Your task to perform on an android device: snooze an email in the gmail app Image 0: 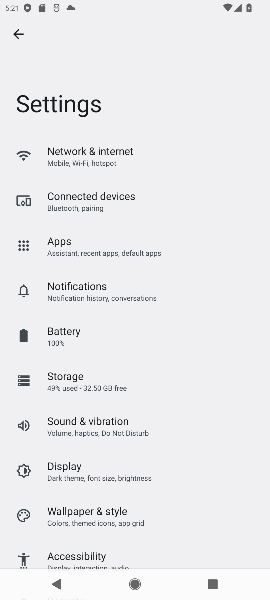
Step 0: press home button
Your task to perform on an android device: snooze an email in the gmail app Image 1: 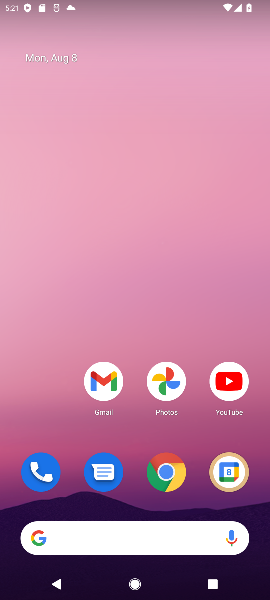
Step 1: click (103, 385)
Your task to perform on an android device: snooze an email in the gmail app Image 2: 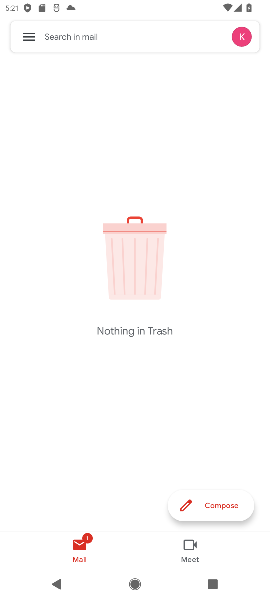
Step 2: click (24, 38)
Your task to perform on an android device: snooze an email in the gmail app Image 3: 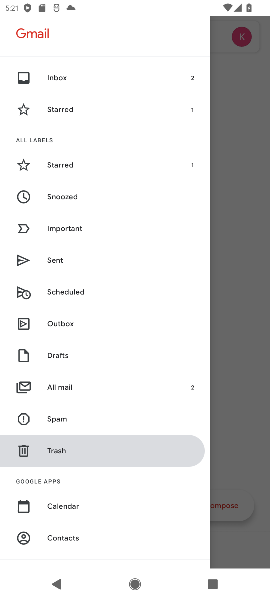
Step 3: click (51, 382)
Your task to perform on an android device: snooze an email in the gmail app Image 4: 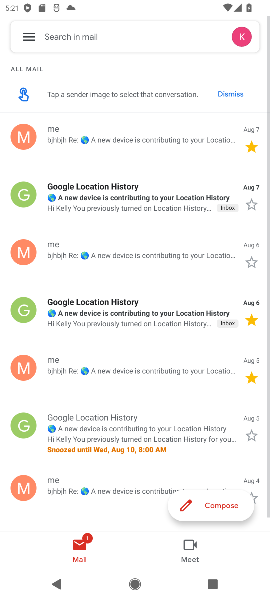
Step 4: click (100, 138)
Your task to perform on an android device: snooze an email in the gmail app Image 5: 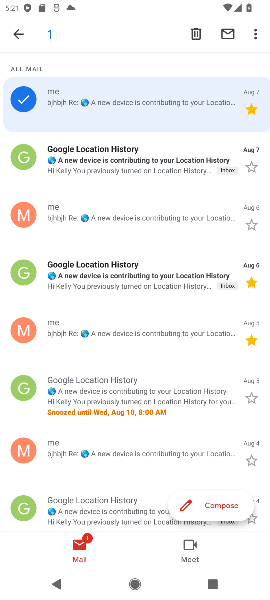
Step 5: click (251, 32)
Your task to perform on an android device: snooze an email in the gmail app Image 6: 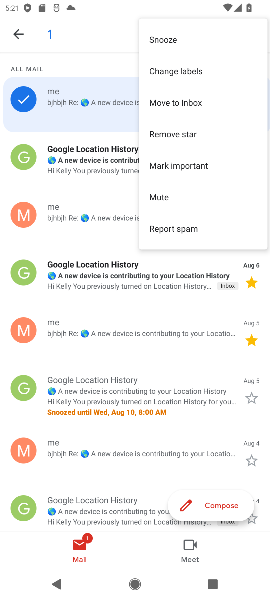
Step 6: click (191, 42)
Your task to perform on an android device: snooze an email in the gmail app Image 7: 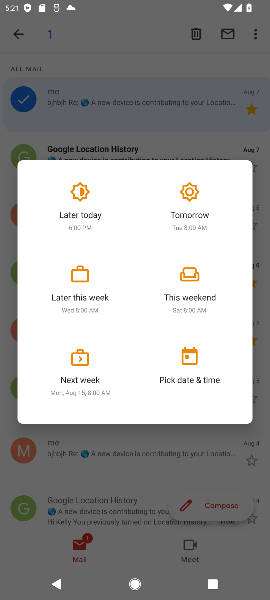
Step 7: click (186, 363)
Your task to perform on an android device: snooze an email in the gmail app Image 8: 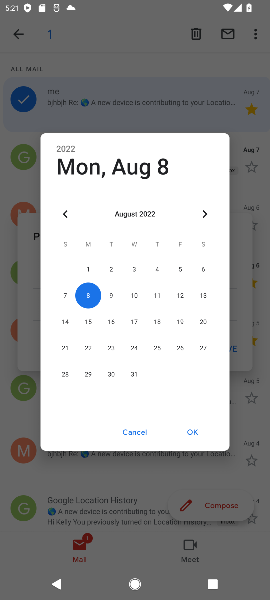
Step 8: click (194, 429)
Your task to perform on an android device: snooze an email in the gmail app Image 9: 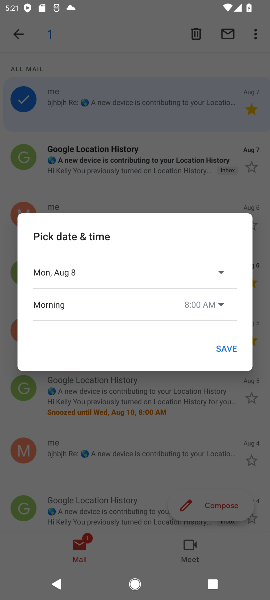
Step 9: click (222, 347)
Your task to perform on an android device: snooze an email in the gmail app Image 10: 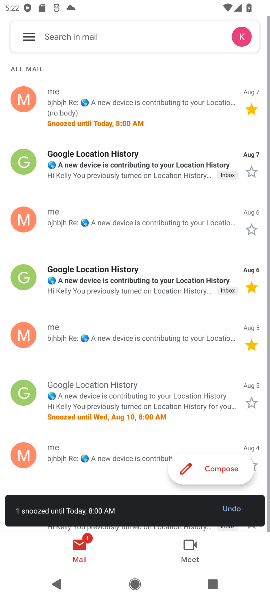
Step 10: task complete